Your task to perform on an android device: find photos in the google photos app Image 0: 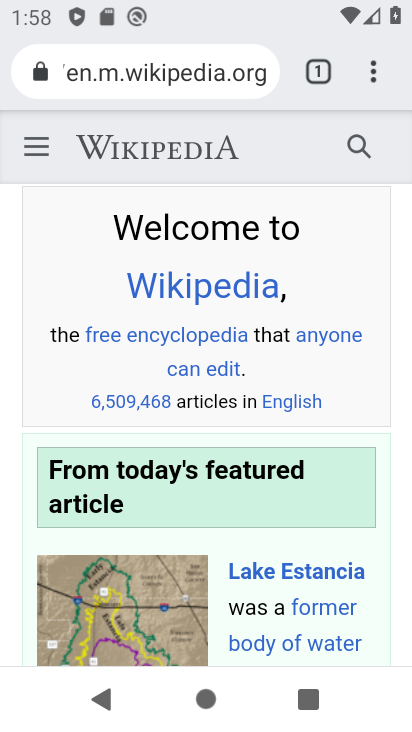
Step 0: press home button
Your task to perform on an android device: find photos in the google photos app Image 1: 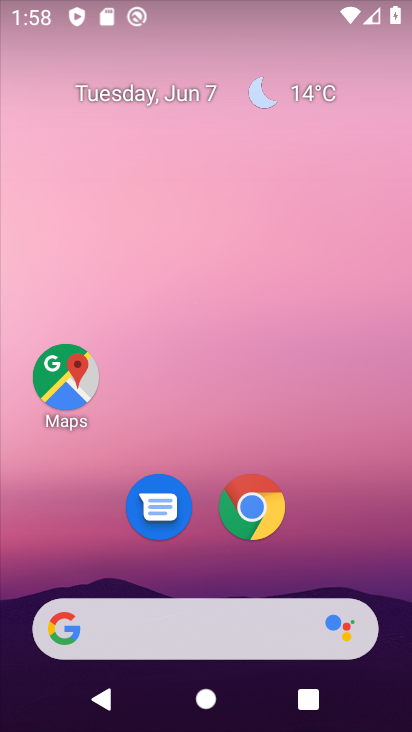
Step 1: drag from (367, 517) to (302, 113)
Your task to perform on an android device: find photos in the google photos app Image 2: 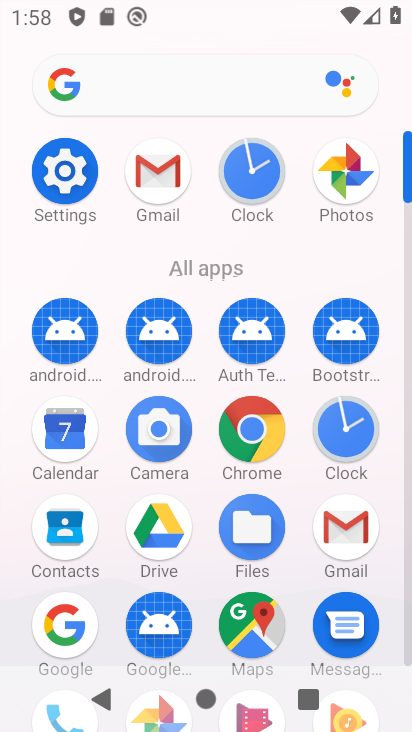
Step 2: click (363, 179)
Your task to perform on an android device: find photos in the google photos app Image 3: 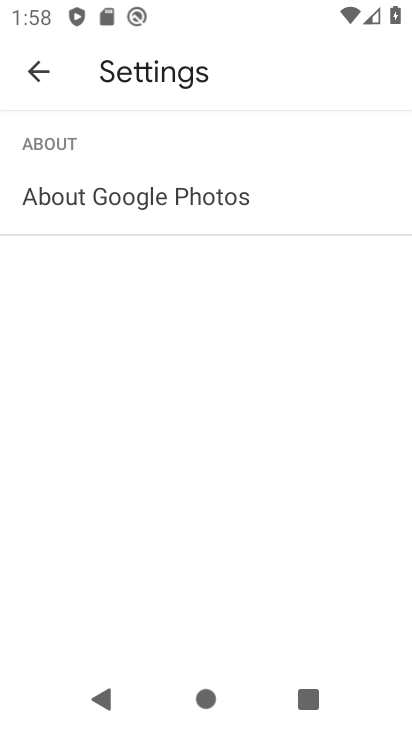
Step 3: click (40, 80)
Your task to perform on an android device: find photos in the google photos app Image 4: 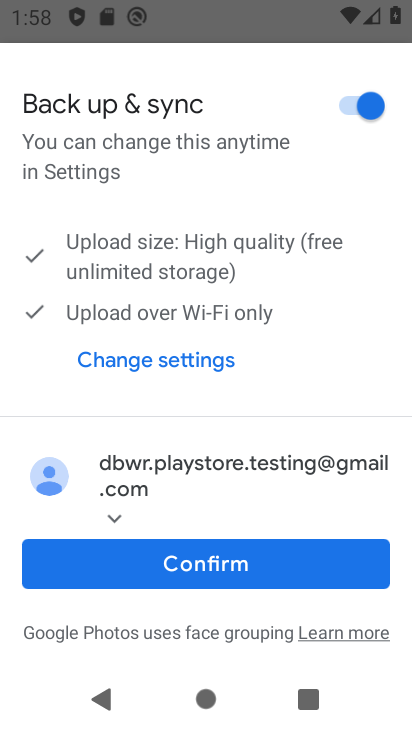
Step 4: click (250, 567)
Your task to perform on an android device: find photos in the google photos app Image 5: 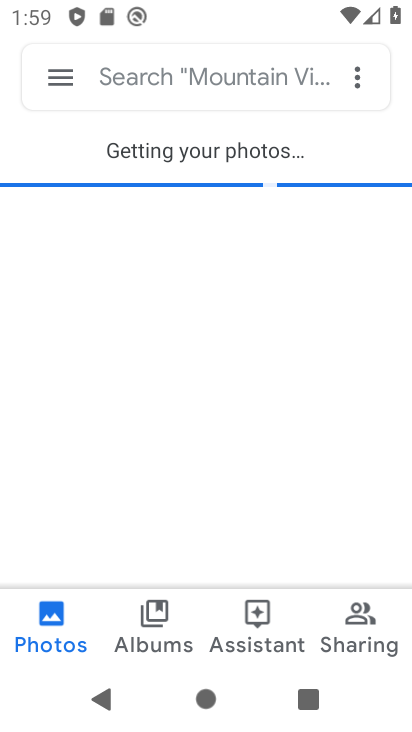
Step 5: click (406, 338)
Your task to perform on an android device: find photos in the google photos app Image 6: 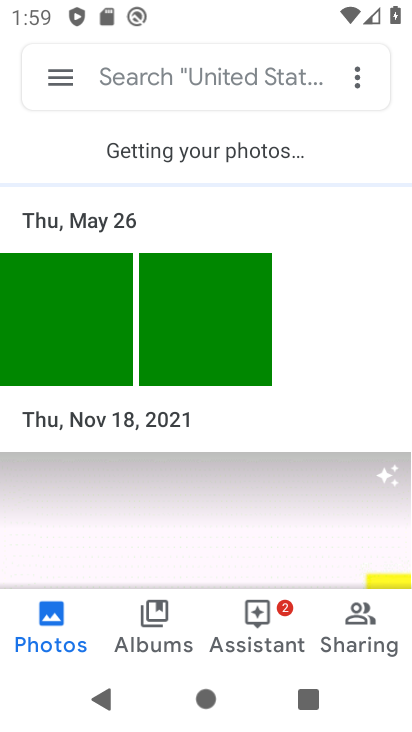
Step 6: task complete